Your task to perform on an android device: open sync settings in chrome Image 0: 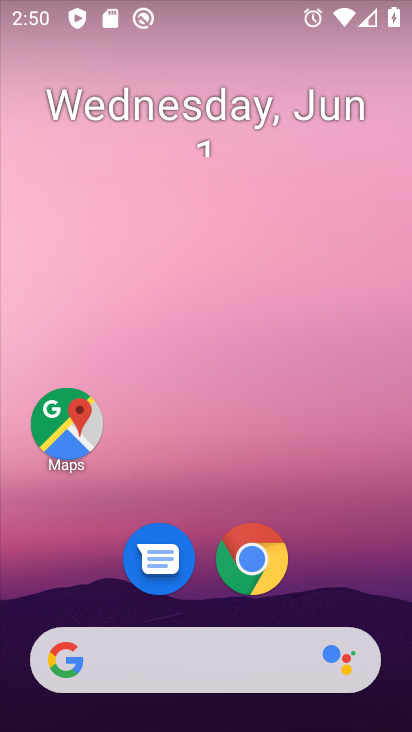
Step 0: click (261, 554)
Your task to perform on an android device: open sync settings in chrome Image 1: 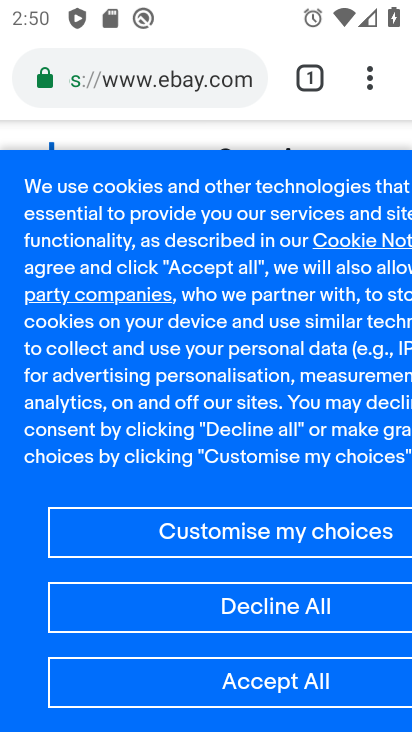
Step 1: click (363, 83)
Your task to perform on an android device: open sync settings in chrome Image 2: 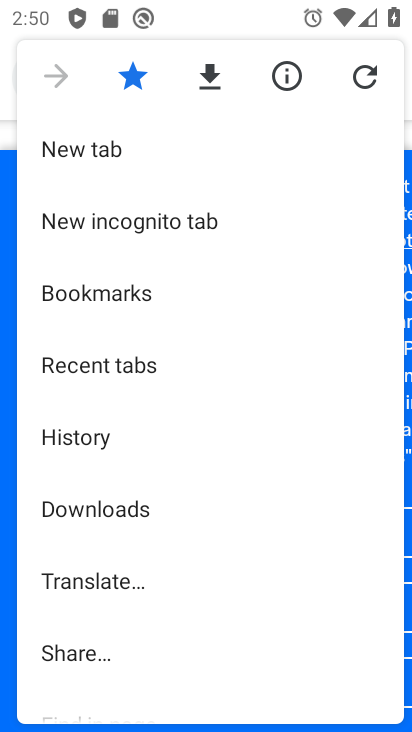
Step 2: drag from (151, 648) to (150, 225)
Your task to perform on an android device: open sync settings in chrome Image 3: 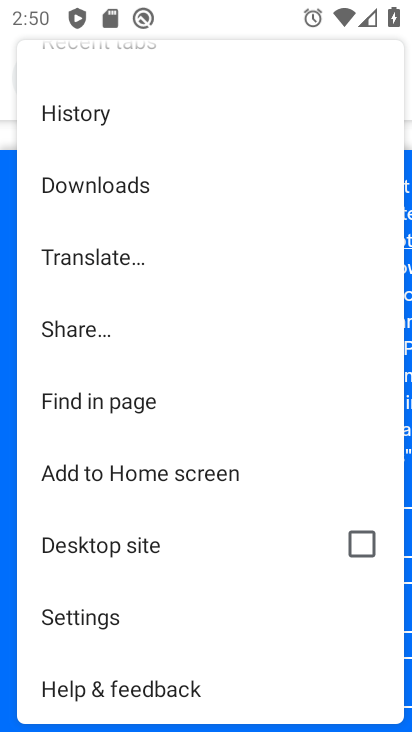
Step 3: click (134, 625)
Your task to perform on an android device: open sync settings in chrome Image 4: 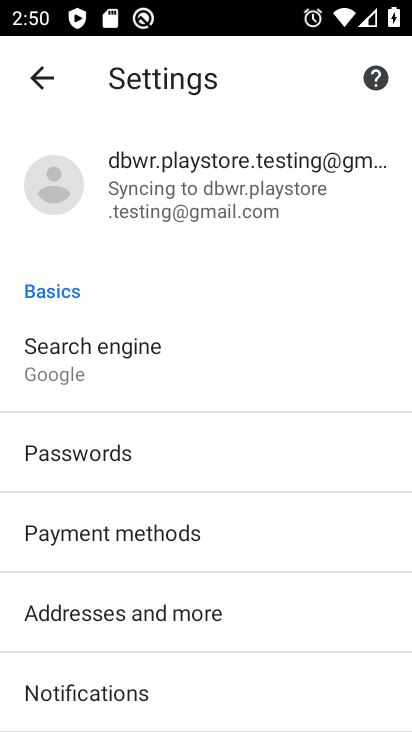
Step 4: click (221, 196)
Your task to perform on an android device: open sync settings in chrome Image 5: 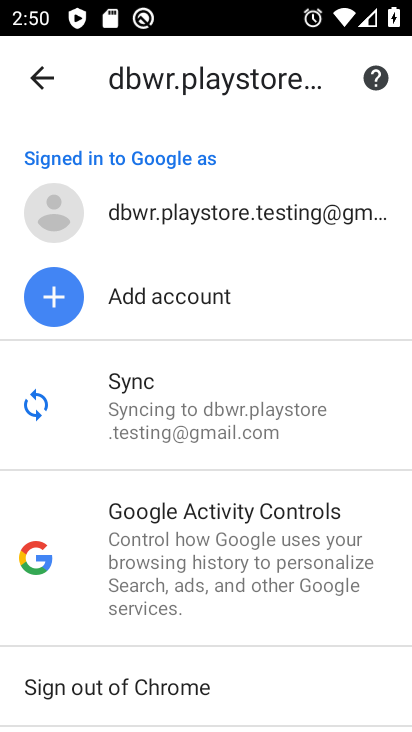
Step 5: click (187, 418)
Your task to perform on an android device: open sync settings in chrome Image 6: 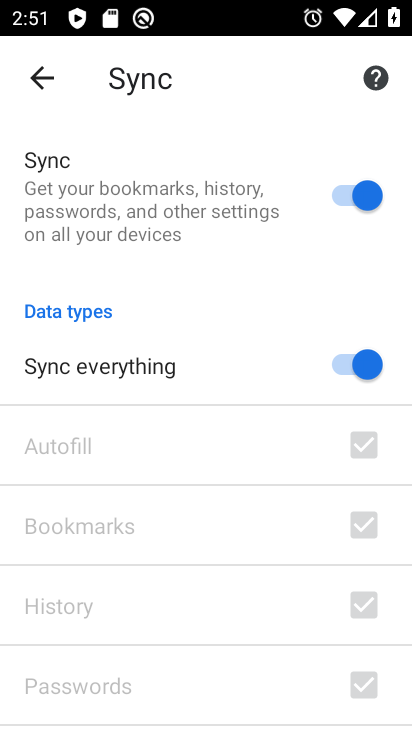
Step 6: task complete